Your task to perform on an android device: Go to Amazon Image 0: 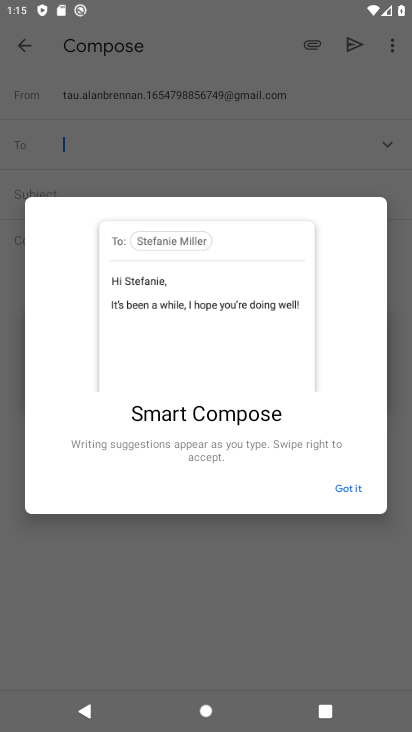
Step 0: press home button
Your task to perform on an android device: Go to Amazon Image 1: 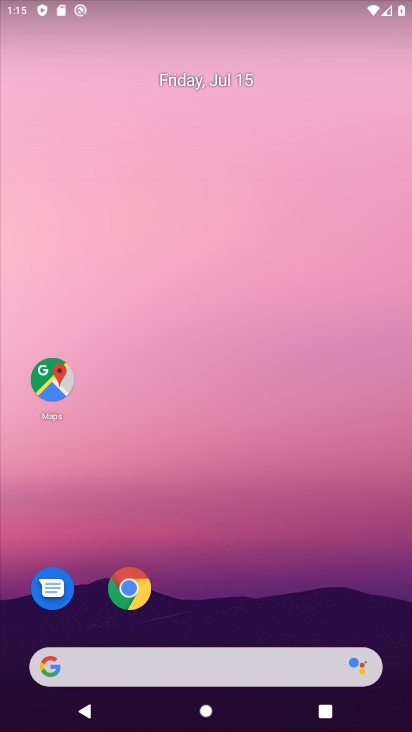
Step 1: click (111, 595)
Your task to perform on an android device: Go to Amazon Image 2: 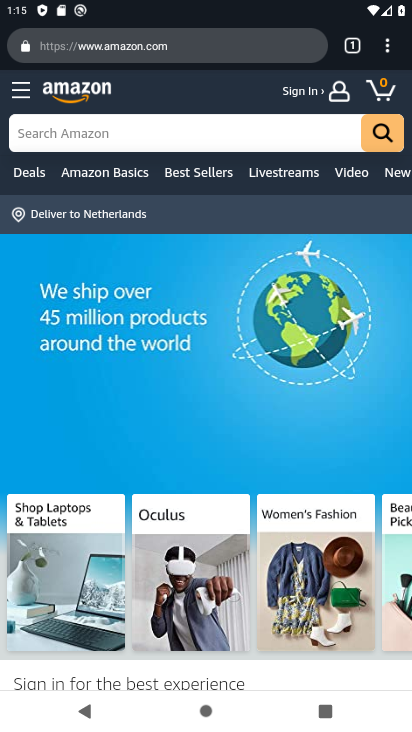
Step 2: task complete